Your task to perform on an android device: delete a single message in the gmail app Image 0: 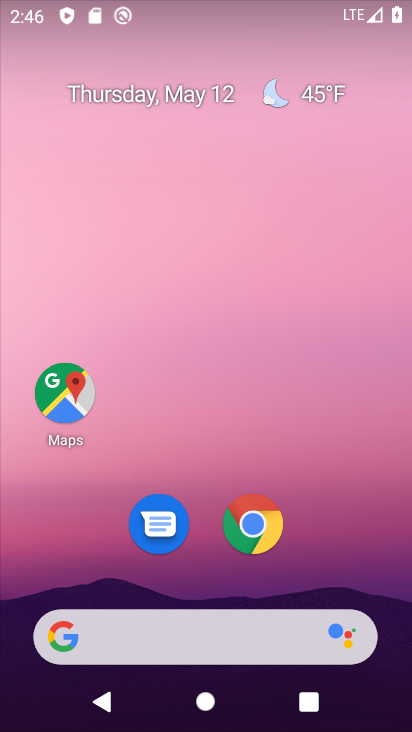
Step 0: drag from (257, 416) to (273, 19)
Your task to perform on an android device: delete a single message in the gmail app Image 1: 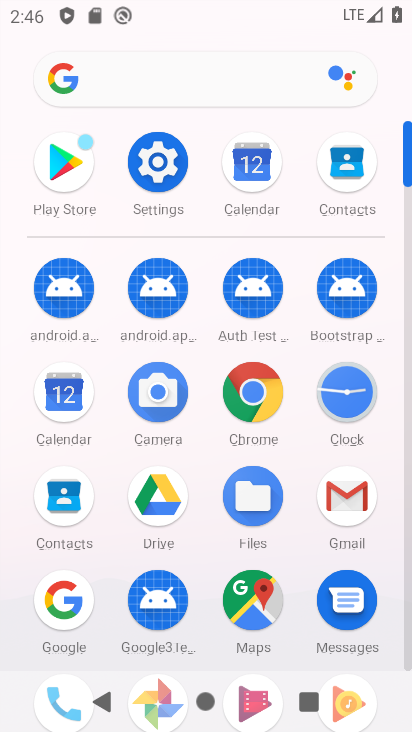
Step 1: click (347, 484)
Your task to perform on an android device: delete a single message in the gmail app Image 2: 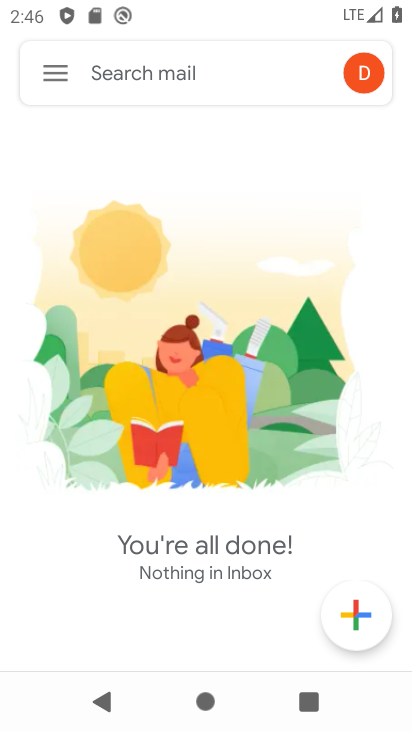
Step 2: click (48, 70)
Your task to perform on an android device: delete a single message in the gmail app Image 3: 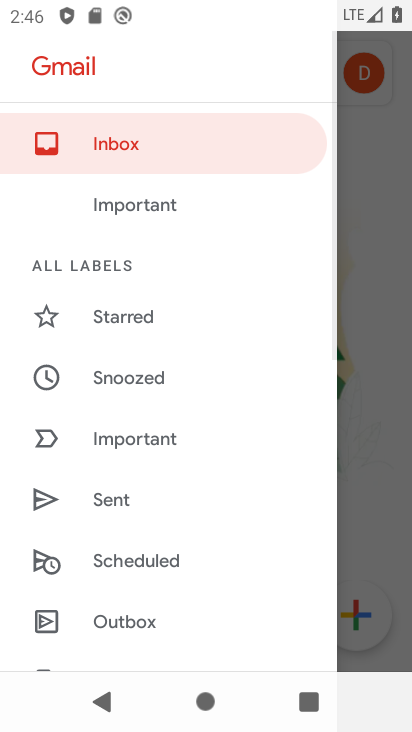
Step 3: drag from (178, 461) to (202, 175)
Your task to perform on an android device: delete a single message in the gmail app Image 4: 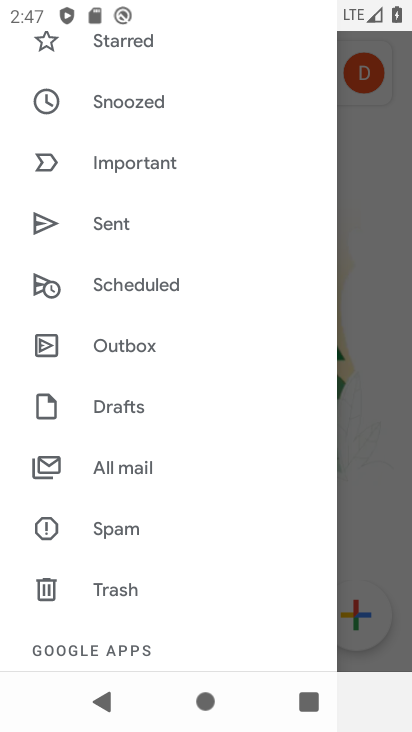
Step 4: click (168, 463)
Your task to perform on an android device: delete a single message in the gmail app Image 5: 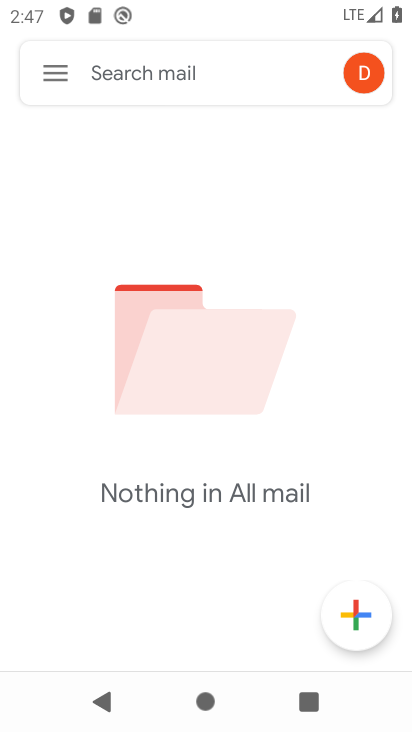
Step 5: task complete